Your task to perform on an android device: see tabs open on other devices in the chrome app Image 0: 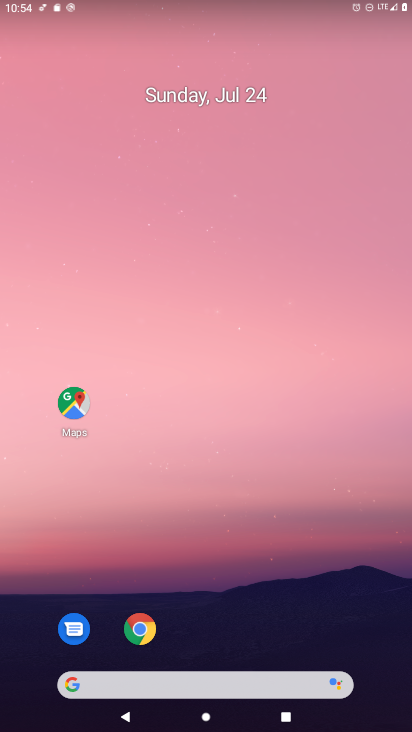
Step 0: drag from (331, 622) to (171, 16)
Your task to perform on an android device: see tabs open on other devices in the chrome app Image 1: 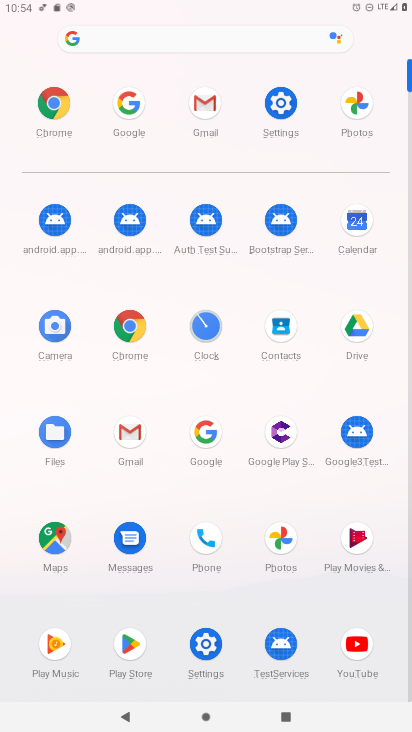
Step 1: click (133, 310)
Your task to perform on an android device: see tabs open on other devices in the chrome app Image 2: 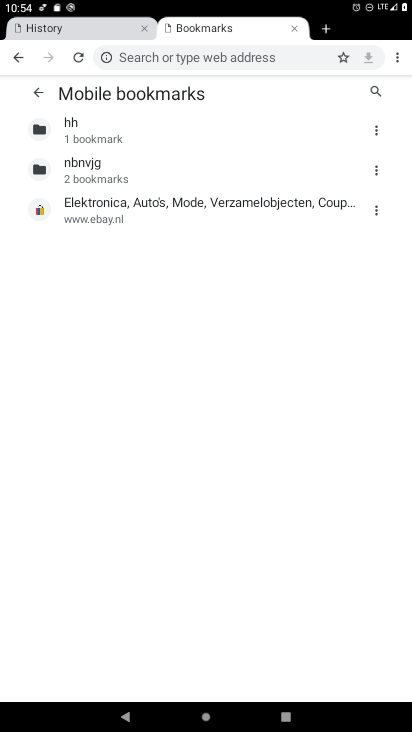
Step 2: task complete